Your task to perform on an android device: stop showing notifications on the lock screen Image 0: 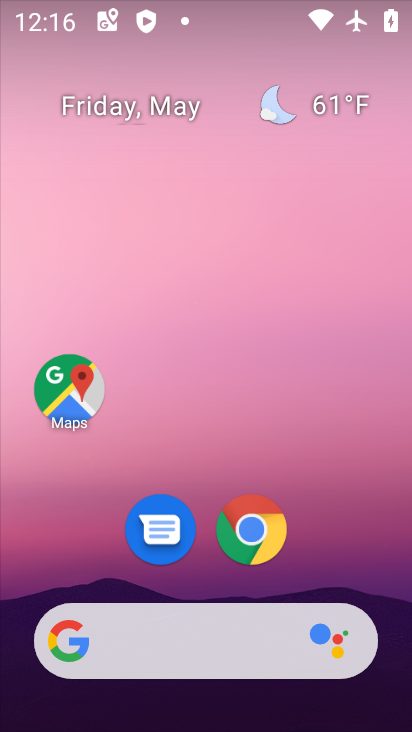
Step 0: drag from (341, 535) to (326, 95)
Your task to perform on an android device: stop showing notifications on the lock screen Image 1: 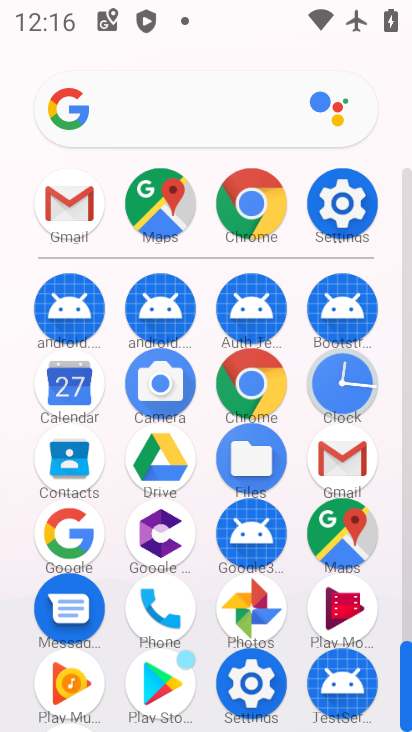
Step 1: click (342, 163)
Your task to perform on an android device: stop showing notifications on the lock screen Image 2: 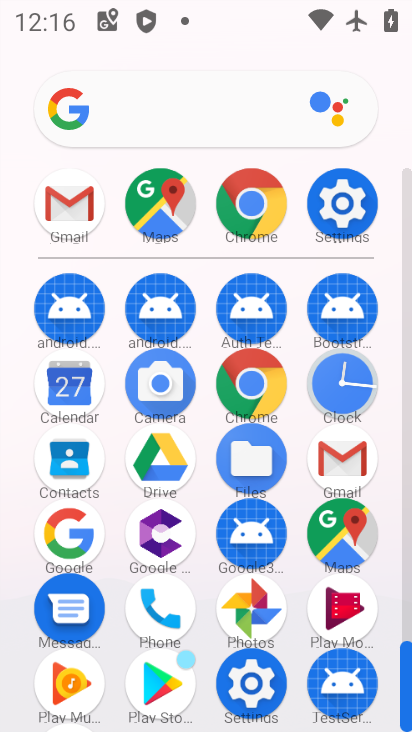
Step 2: click (335, 188)
Your task to perform on an android device: stop showing notifications on the lock screen Image 3: 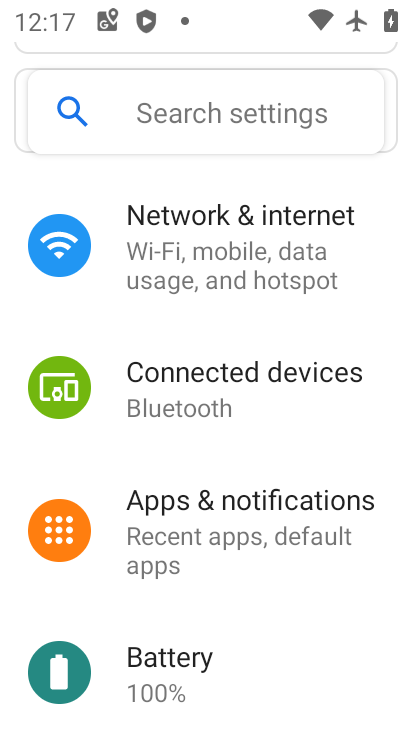
Step 3: task complete